Your task to perform on an android device: Open calendar and show me the first week of next month Image 0: 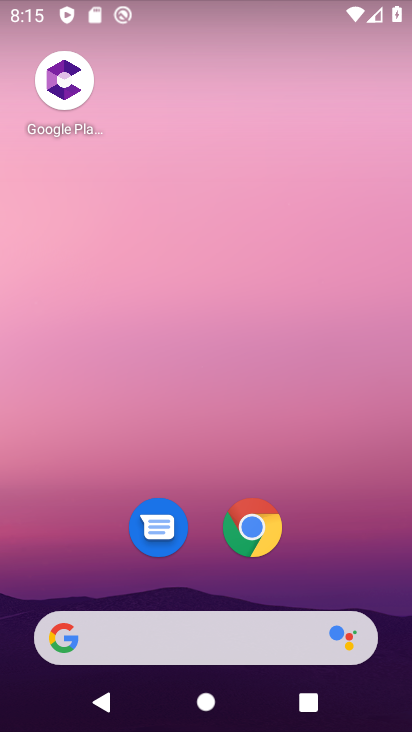
Step 0: drag from (326, 400) to (407, 103)
Your task to perform on an android device: Open calendar and show me the first week of next month Image 1: 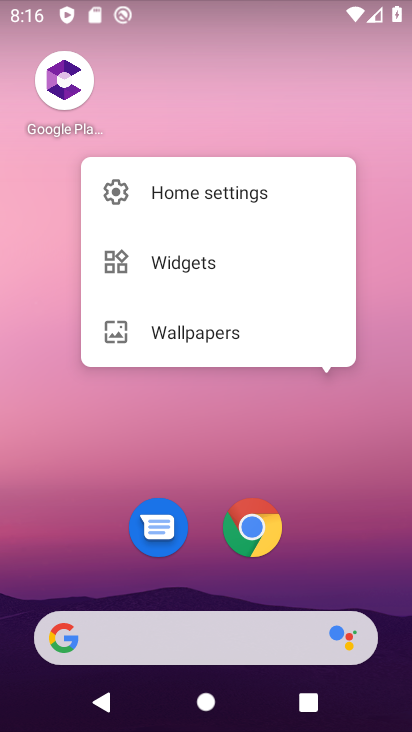
Step 1: click (359, 537)
Your task to perform on an android device: Open calendar and show me the first week of next month Image 2: 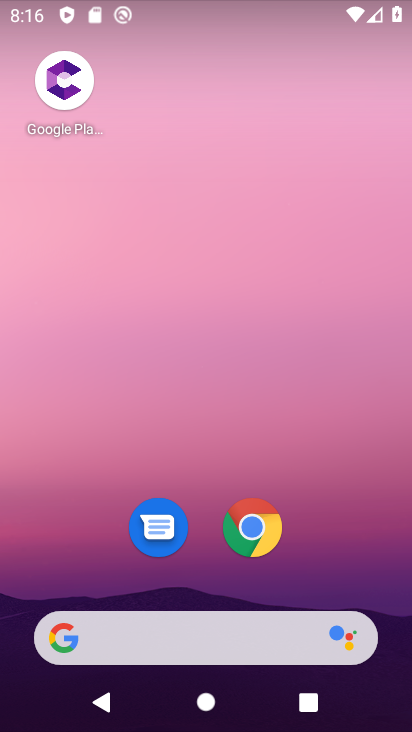
Step 2: drag from (325, 530) to (267, 12)
Your task to perform on an android device: Open calendar and show me the first week of next month Image 3: 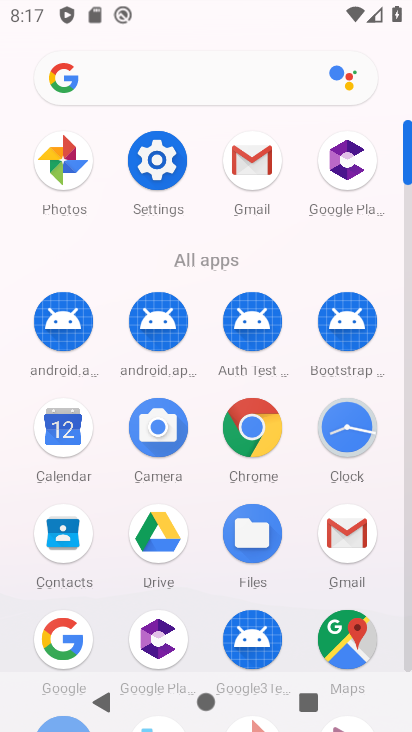
Step 3: click (78, 424)
Your task to perform on an android device: Open calendar and show me the first week of next month Image 4: 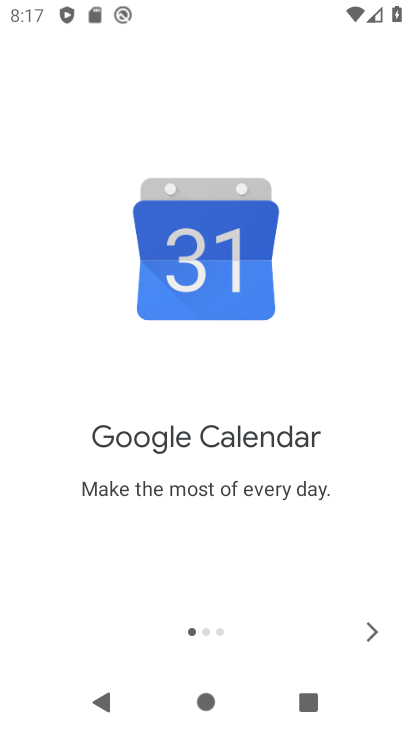
Step 4: click (361, 629)
Your task to perform on an android device: Open calendar and show me the first week of next month Image 5: 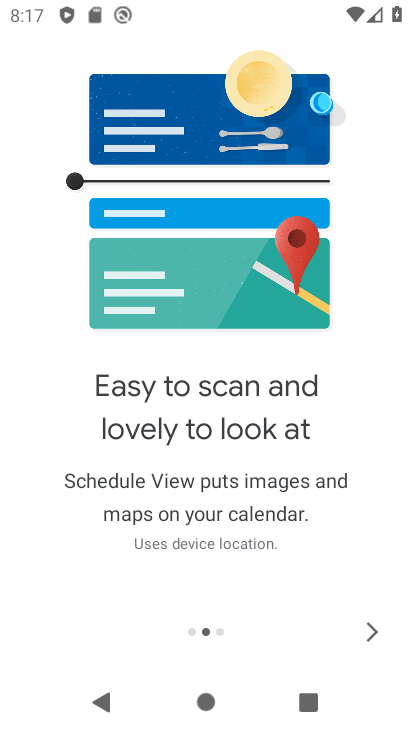
Step 5: click (361, 629)
Your task to perform on an android device: Open calendar and show me the first week of next month Image 6: 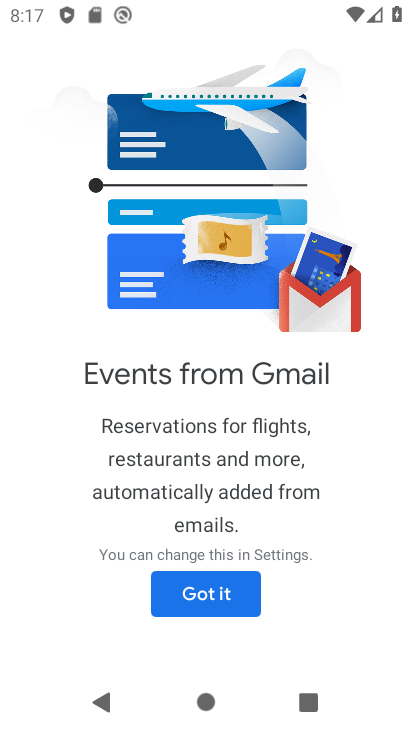
Step 6: click (238, 604)
Your task to perform on an android device: Open calendar and show me the first week of next month Image 7: 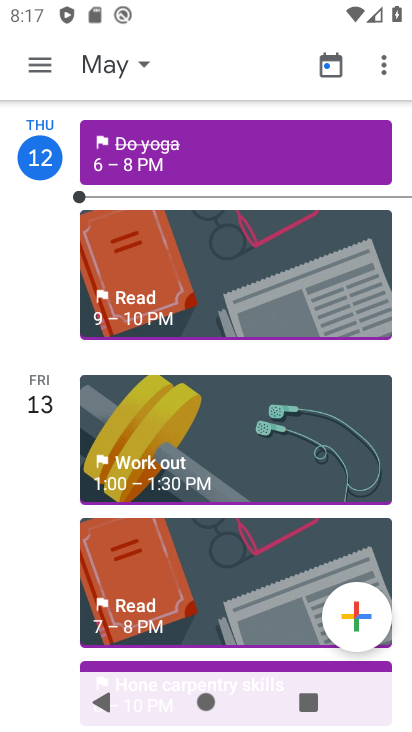
Step 7: click (151, 71)
Your task to perform on an android device: Open calendar and show me the first week of next month Image 8: 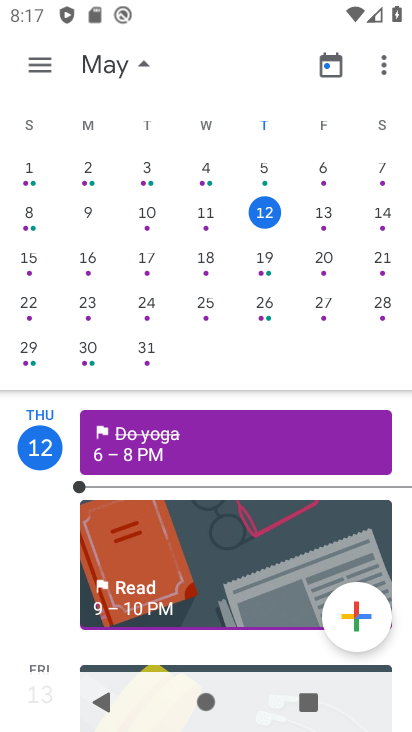
Step 8: drag from (351, 259) to (2, 259)
Your task to perform on an android device: Open calendar and show me the first week of next month Image 9: 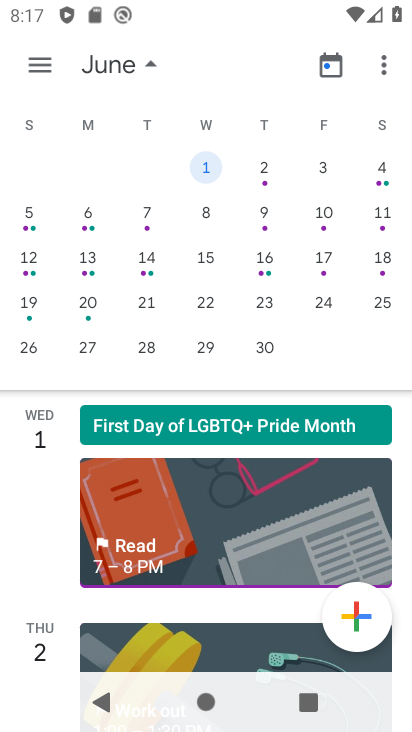
Step 9: click (210, 212)
Your task to perform on an android device: Open calendar and show me the first week of next month Image 10: 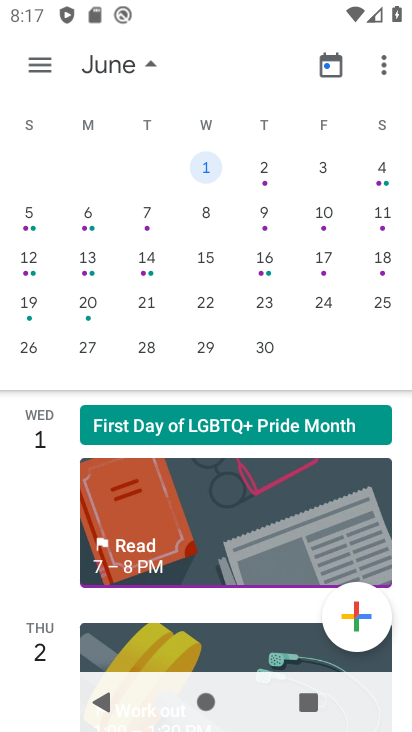
Step 10: task complete